Your task to perform on an android device: find snoozed emails in the gmail app Image 0: 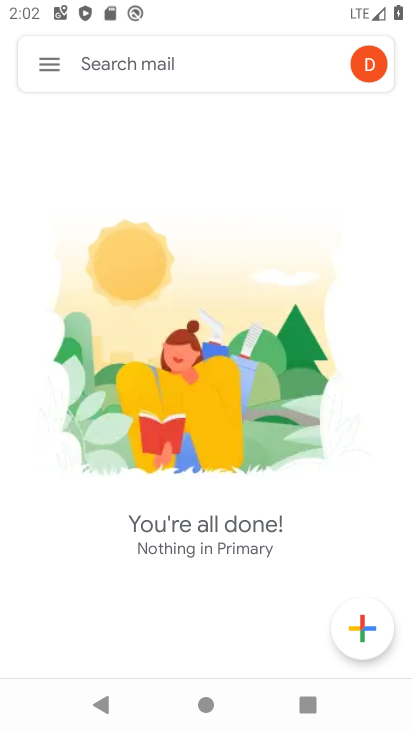
Step 0: click (41, 66)
Your task to perform on an android device: find snoozed emails in the gmail app Image 1: 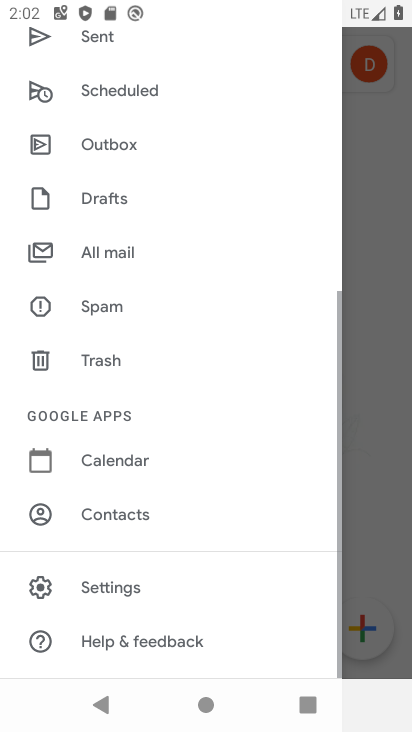
Step 1: drag from (151, 156) to (257, 616)
Your task to perform on an android device: find snoozed emails in the gmail app Image 2: 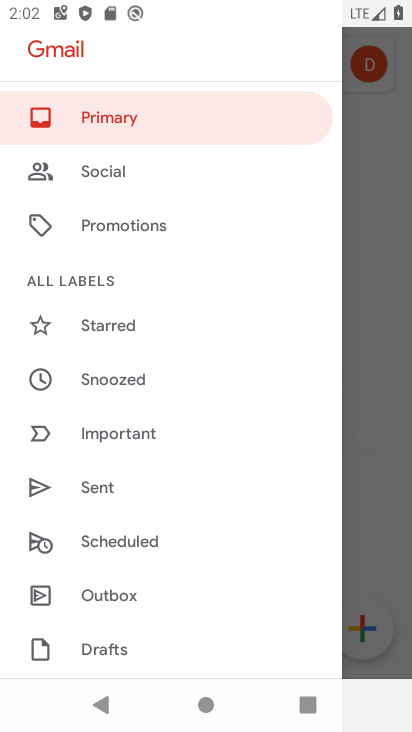
Step 2: click (128, 386)
Your task to perform on an android device: find snoozed emails in the gmail app Image 3: 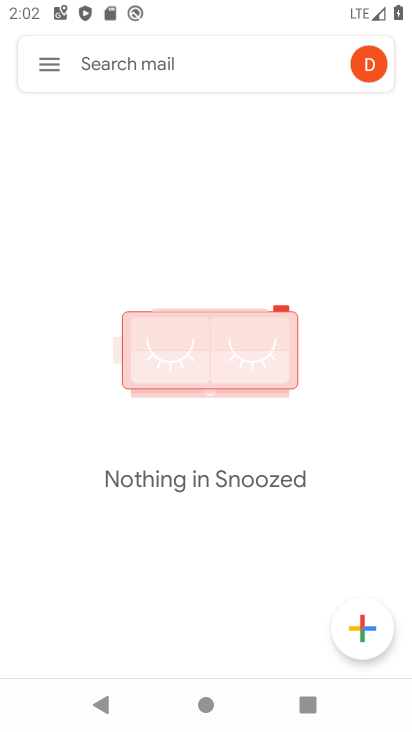
Step 3: task complete